Your task to perform on an android device: install app "Google Pay: Save, Pay, Manage" Image 0: 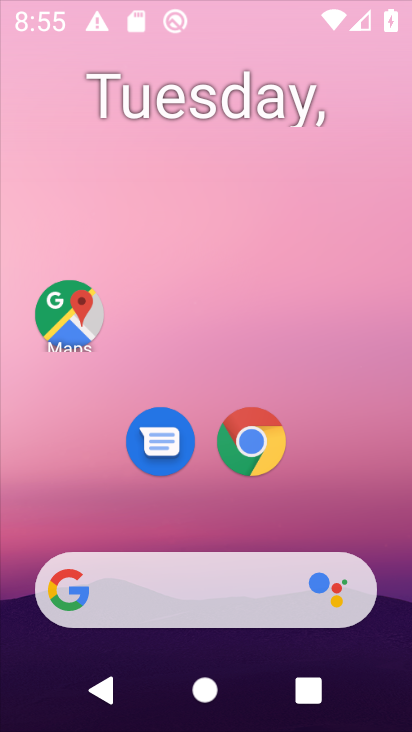
Step 0: press home button
Your task to perform on an android device: install app "Google Pay: Save, Pay, Manage" Image 1: 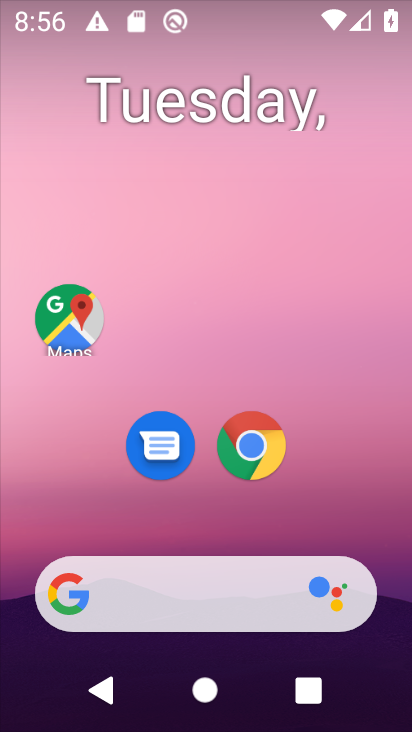
Step 1: drag from (202, 562) to (208, 91)
Your task to perform on an android device: install app "Google Pay: Save, Pay, Manage" Image 2: 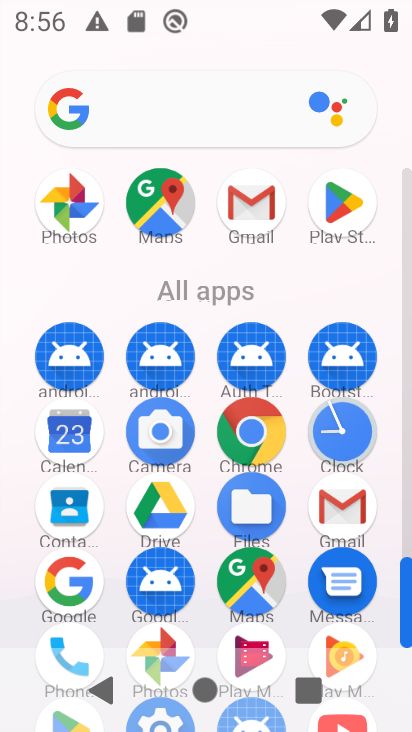
Step 2: click (348, 207)
Your task to perform on an android device: install app "Google Pay: Save, Pay, Manage" Image 3: 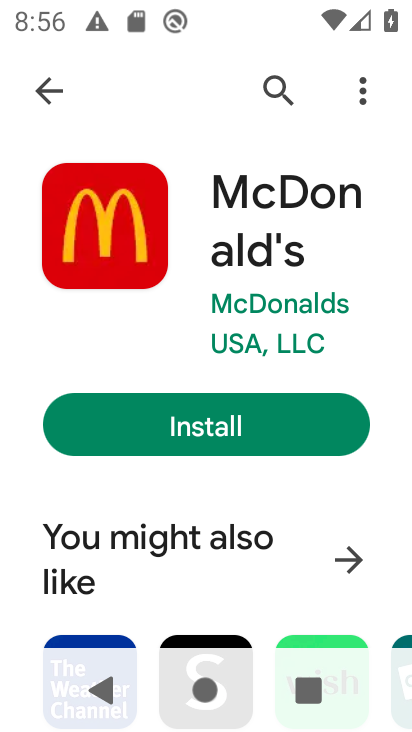
Step 3: click (47, 76)
Your task to perform on an android device: install app "Google Pay: Save, Pay, Manage" Image 4: 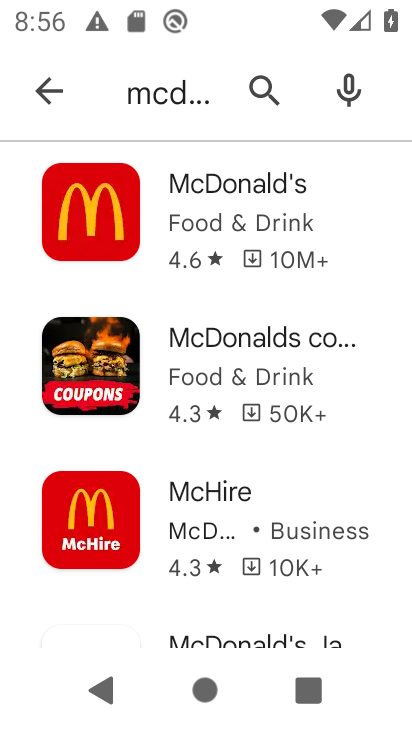
Step 4: click (266, 75)
Your task to perform on an android device: install app "Google Pay: Save, Pay, Manage" Image 5: 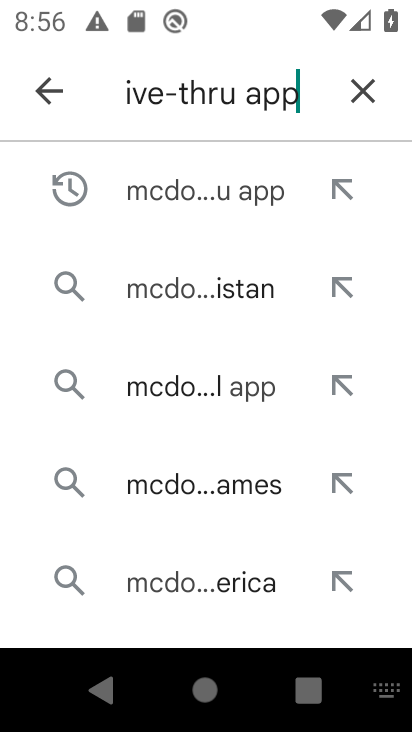
Step 5: click (342, 92)
Your task to perform on an android device: install app "Google Pay: Save, Pay, Manage" Image 6: 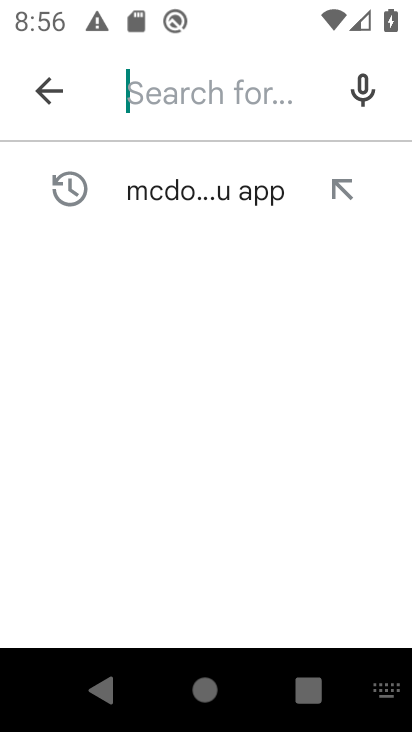
Step 6: click (199, 89)
Your task to perform on an android device: install app "Google Pay: Save, Pay, Manage" Image 7: 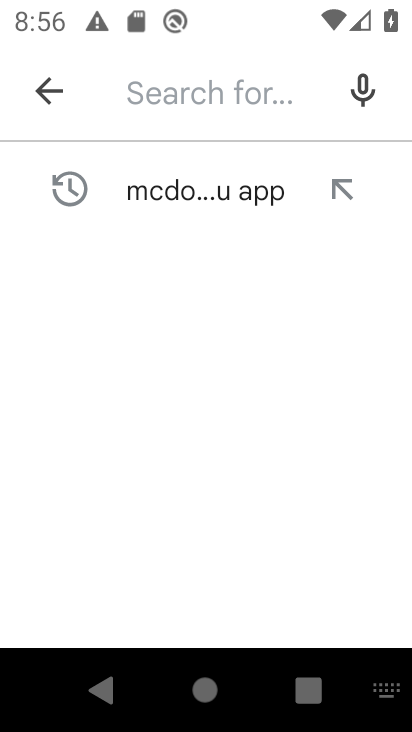
Step 7: type "Google Pay: Save, Pay, Manage "
Your task to perform on an android device: install app "Google Pay: Save, Pay, Manage" Image 8: 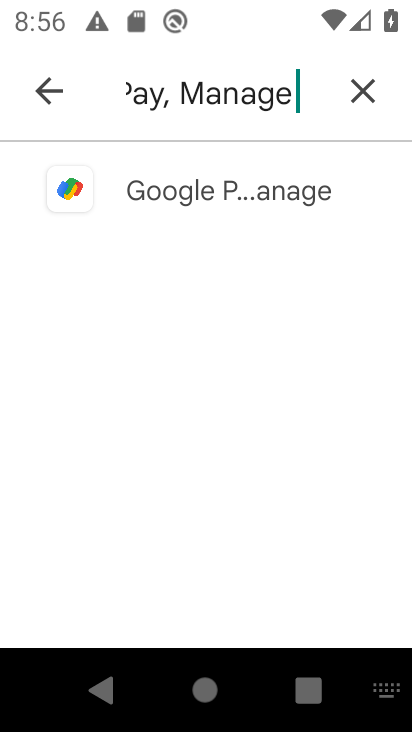
Step 8: click (199, 173)
Your task to perform on an android device: install app "Google Pay: Save, Pay, Manage" Image 9: 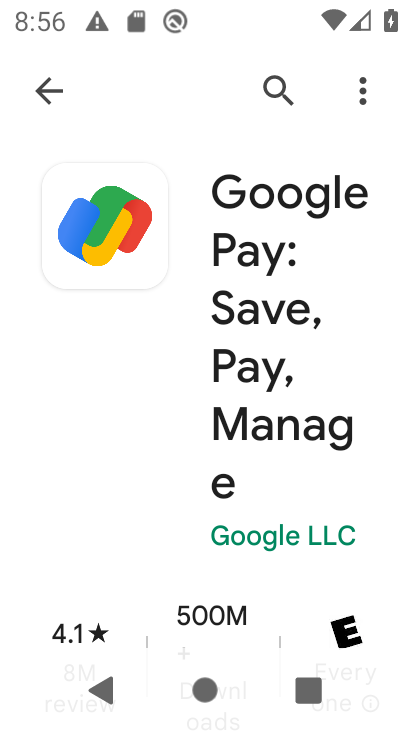
Step 9: drag from (178, 382) to (206, 135)
Your task to perform on an android device: install app "Google Pay: Save, Pay, Manage" Image 10: 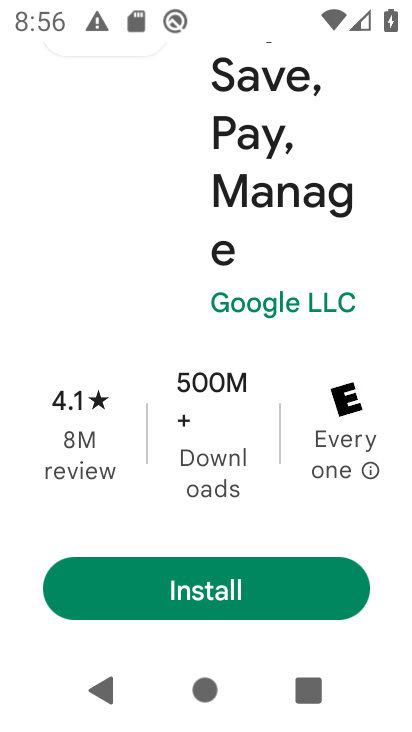
Step 10: drag from (145, 239) to (157, 173)
Your task to perform on an android device: install app "Google Pay: Save, Pay, Manage" Image 11: 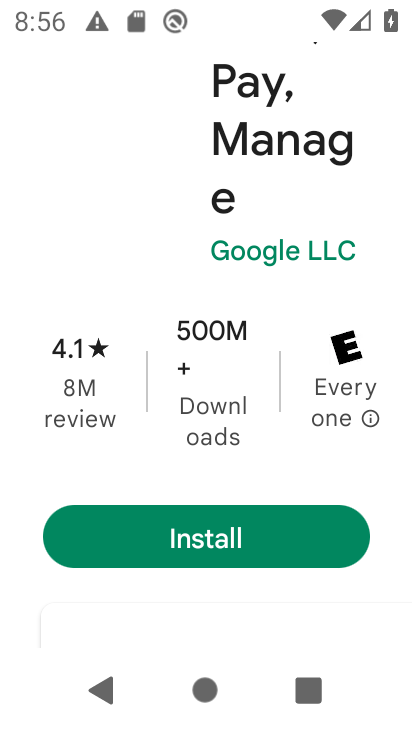
Step 11: click (191, 563)
Your task to perform on an android device: install app "Google Pay: Save, Pay, Manage" Image 12: 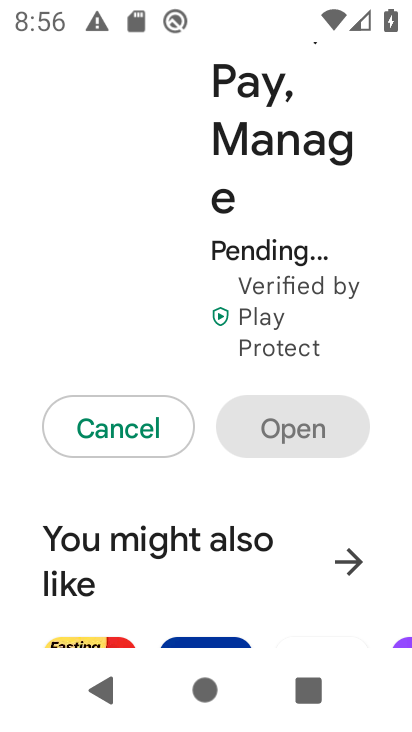
Step 12: task complete